Your task to perform on an android device: Open accessibility settings Image 0: 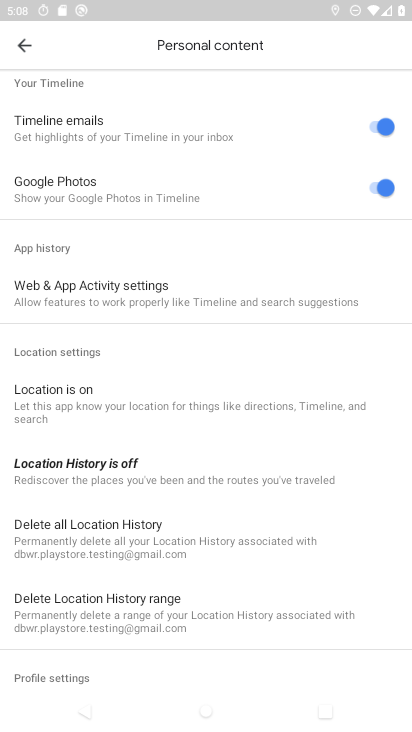
Step 0: press home button
Your task to perform on an android device: Open accessibility settings Image 1: 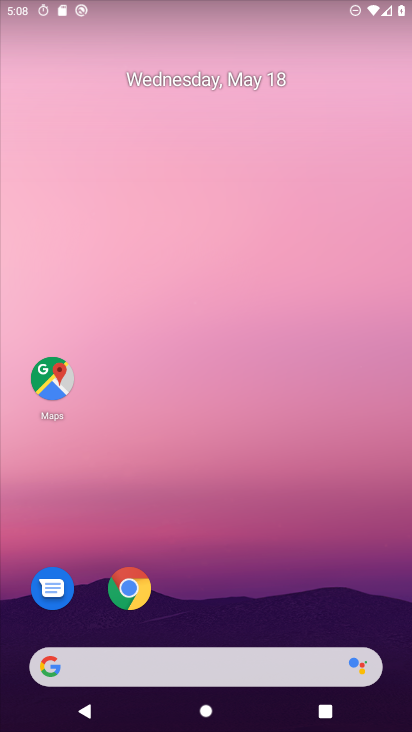
Step 1: drag from (221, 318) to (190, 130)
Your task to perform on an android device: Open accessibility settings Image 2: 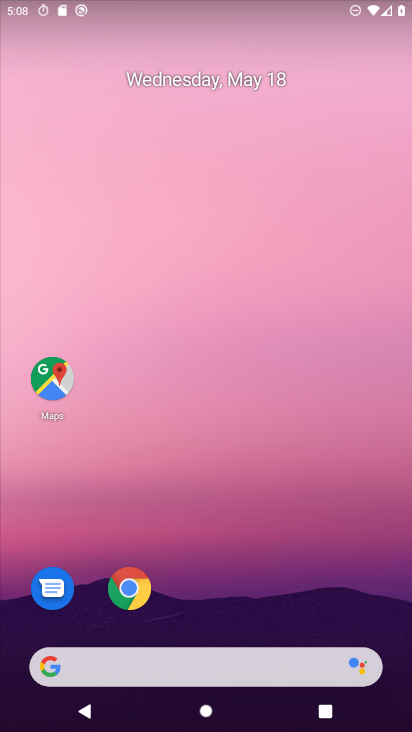
Step 2: drag from (225, 588) to (219, 18)
Your task to perform on an android device: Open accessibility settings Image 3: 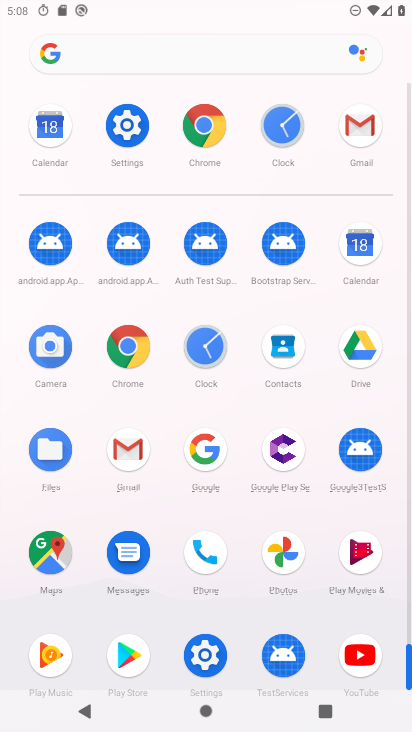
Step 3: click (117, 134)
Your task to perform on an android device: Open accessibility settings Image 4: 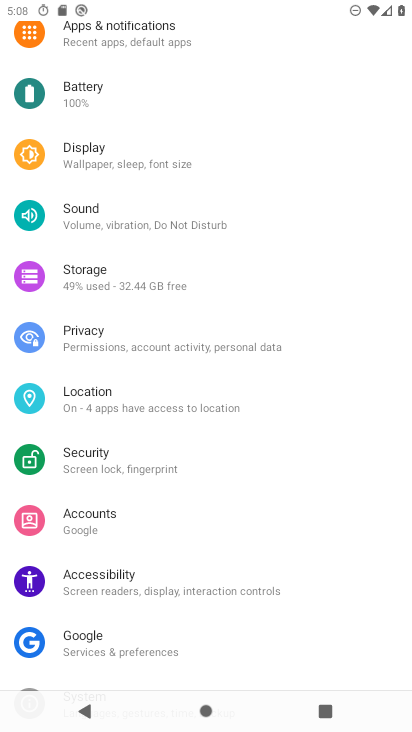
Step 4: click (90, 579)
Your task to perform on an android device: Open accessibility settings Image 5: 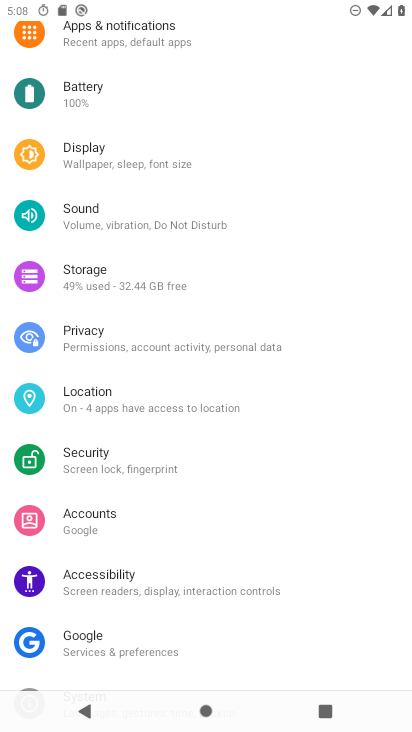
Step 5: click (87, 576)
Your task to perform on an android device: Open accessibility settings Image 6: 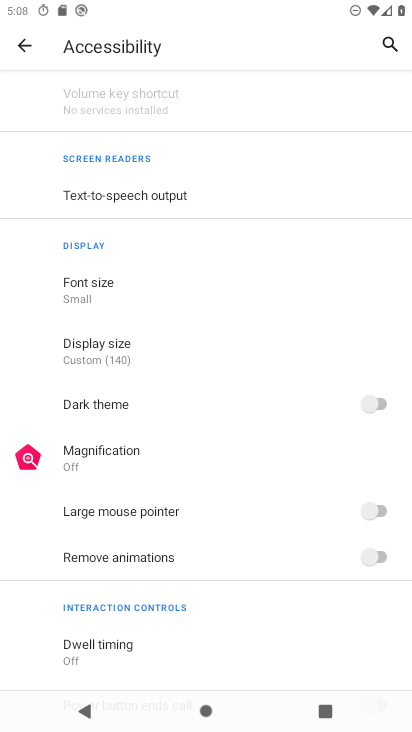
Step 6: task complete